Your task to perform on an android device: turn smart compose on in the gmail app Image 0: 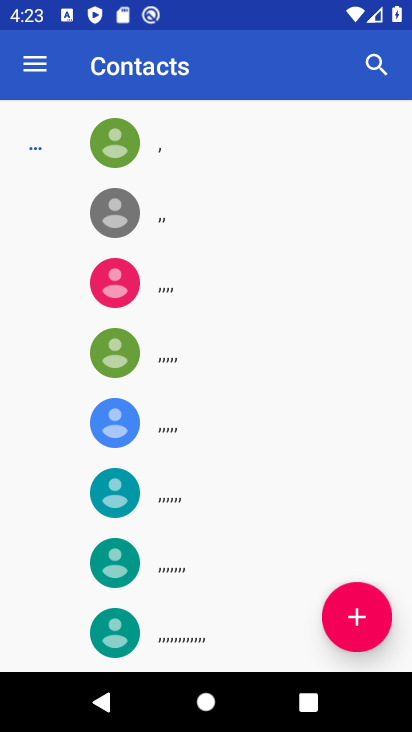
Step 0: press home button
Your task to perform on an android device: turn smart compose on in the gmail app Image 1: 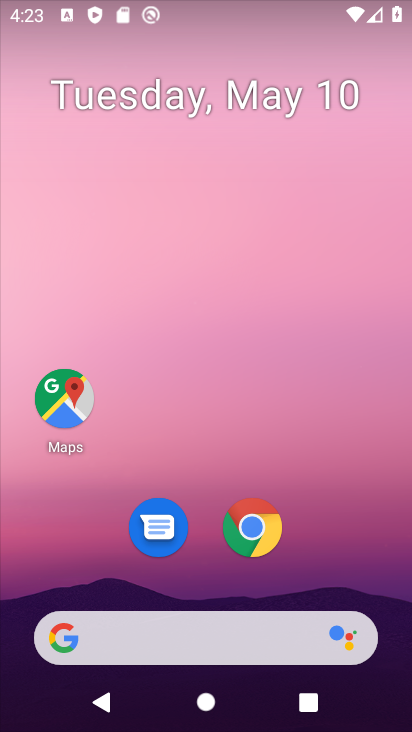
Step 1: drag from (337, 505) to (304, 2)
Your task to perform on an android device: turn smart compose on in the gmail app Image 2: 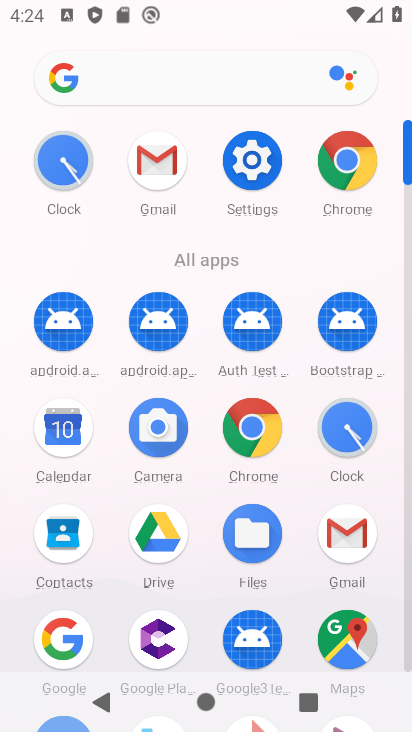
Step 2: click (332, 523)
Your task to perform on an android device: turn smart compose on in the gmail app Image 3: 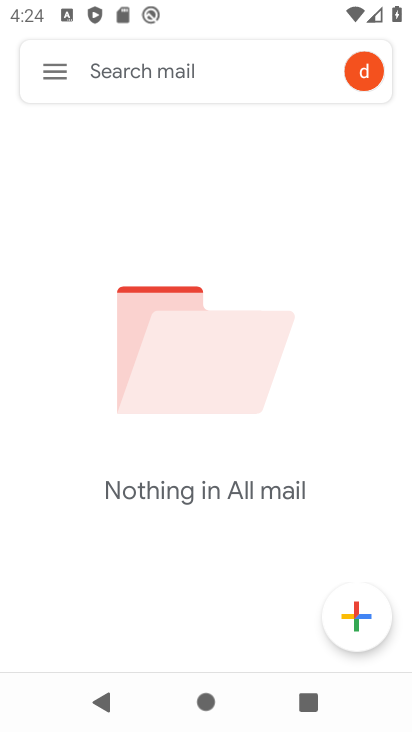
Step 3: click (62, 65)
Your task to perform on an android device: turn smart compose on in the gmail app Image 4: 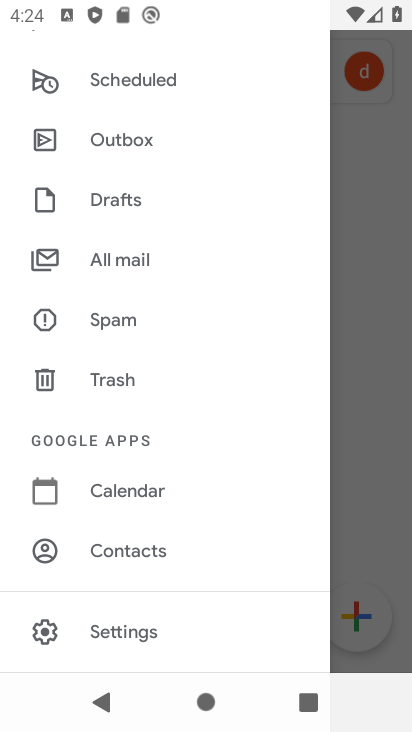
Step 4: click (129, 621)
Your task to perform on an android device: turn smart compose on in the gmail app Image 5: 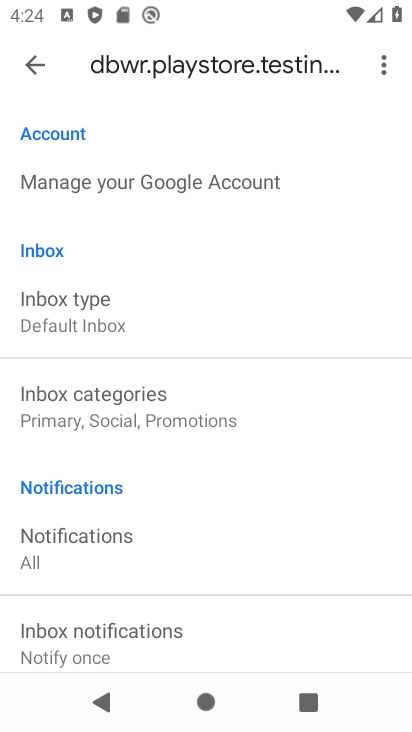
Step 5: task complete